Your task to perform on an android device: Check the weather Image 0: 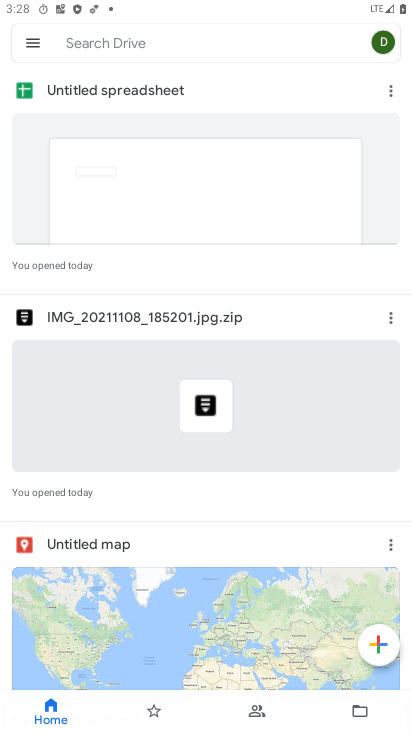
Step 0: press home button
Your task to perform on an android device: Check the weather Image 1: 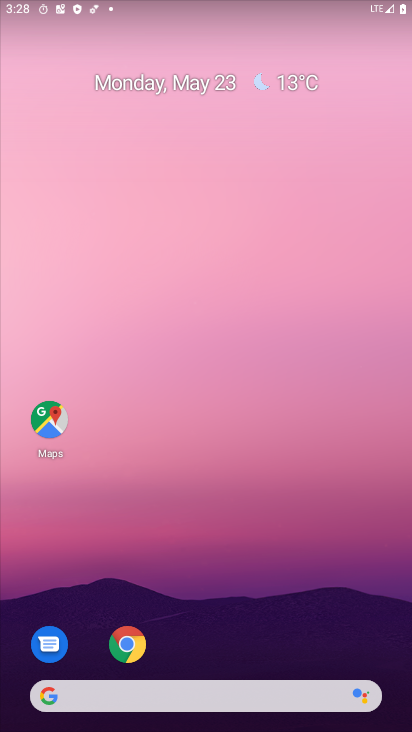
Step 1: click (211, 682)
Your task to perform on an android device: Check the weather Image 2: 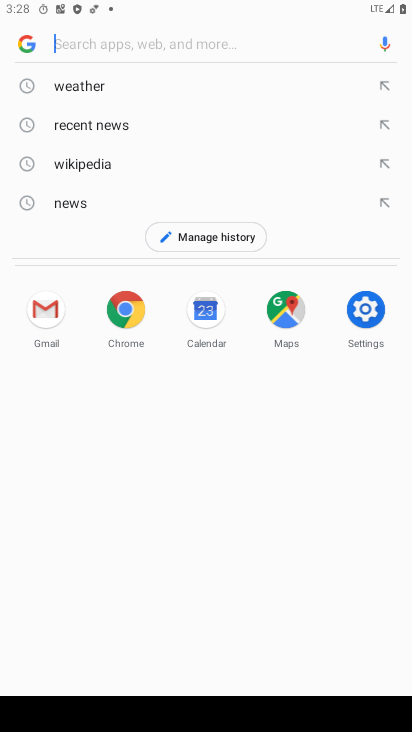
Step 2: click (73, 87)
Your task to perform on an android device: Check the weather Image 3: 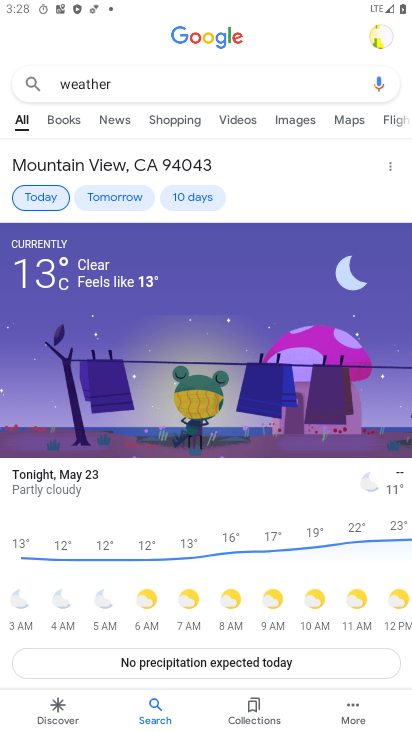
Step 3: task complete